Your task to perform on an android device: Play the latest video from the Washington Post Image 0: 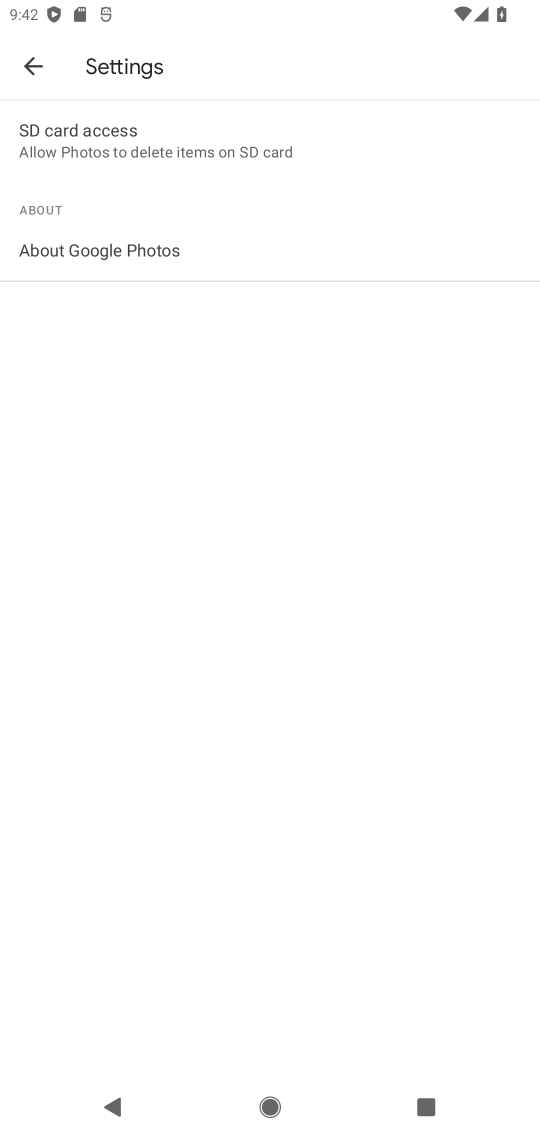
Step 0: press home button
Your task to perform on an android device: Play the latest video from the Washington Post Image 1: 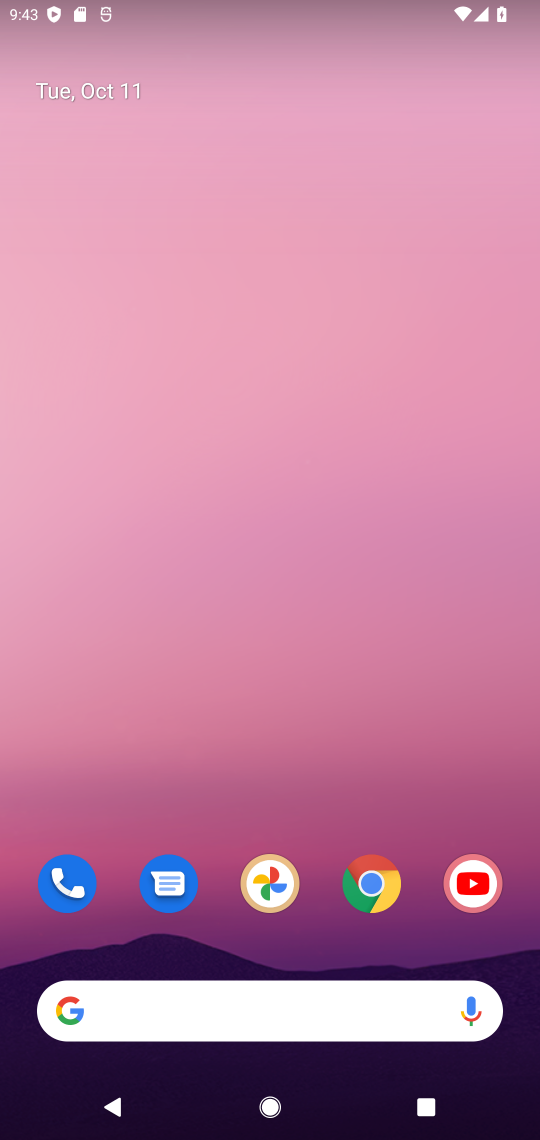
Step 1: drag from (410, 1139) to (524, 1115)
Your task to perform on an android device: Play the latest video from the Washington Post Image 2: 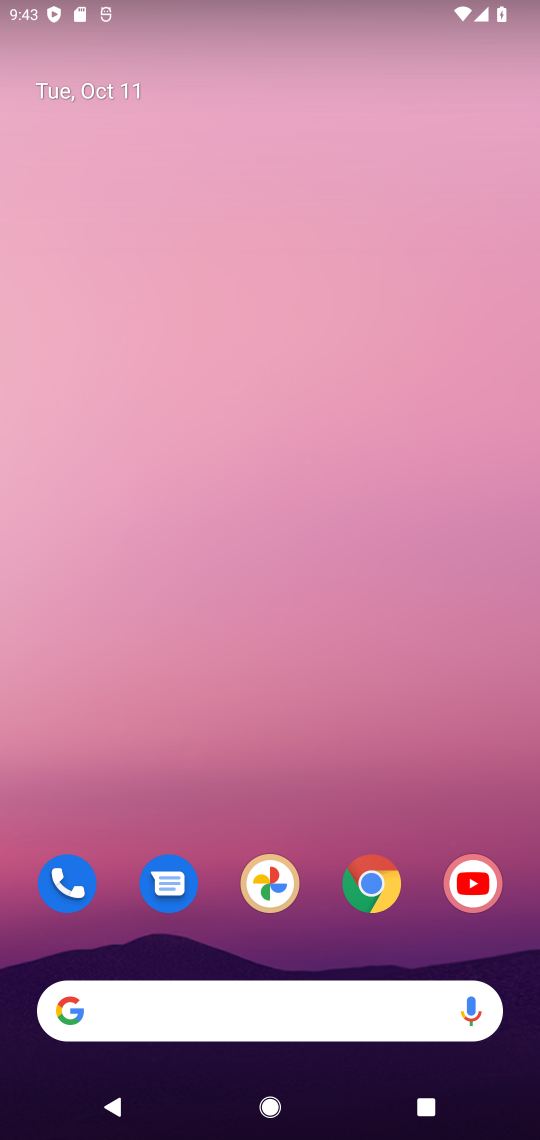
Step 2: click (65, 1010)
Your task to perform on an android device: Play the latest video from the Washington Post Image 3: 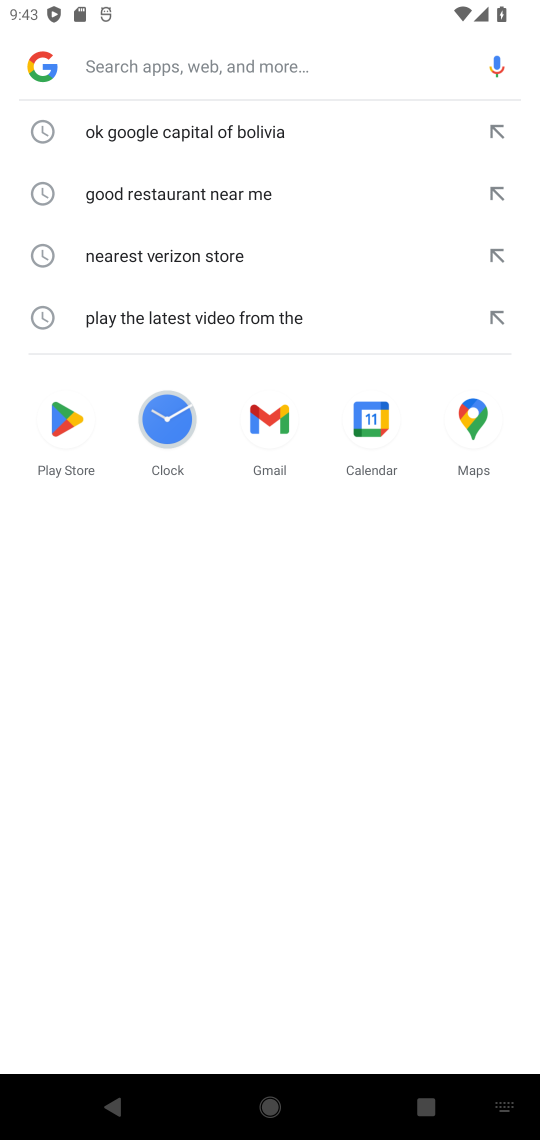
Step 3: click (315, 58)
Your task to perform on an android device: Play the latest video from the Washington Post Image 4: 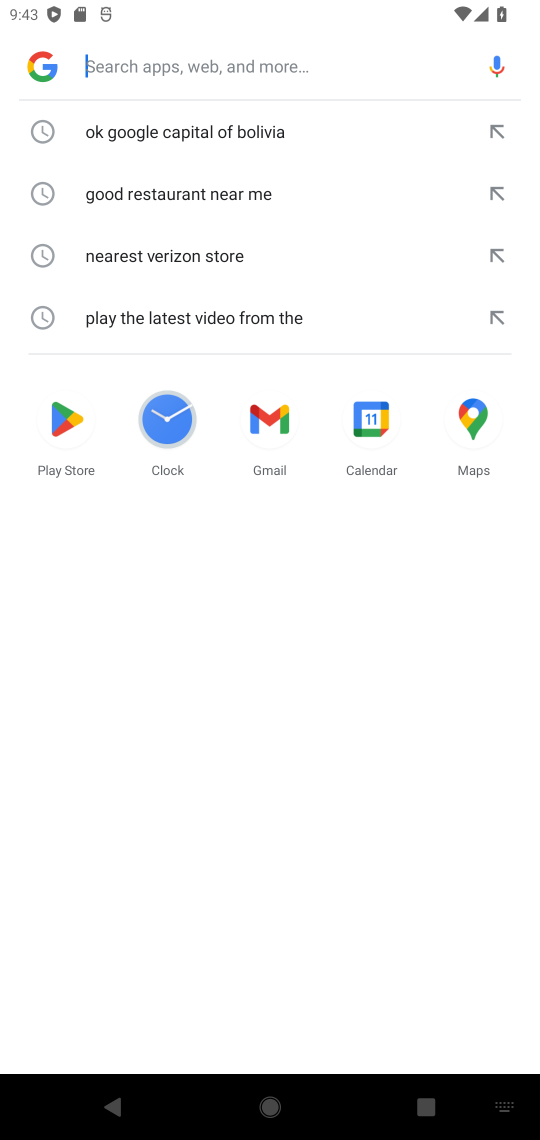
Step 4: type "Play the latest video from the Washington Post"
Your task to perform on an android device: Play the latest video from the Washington Post Image 5: 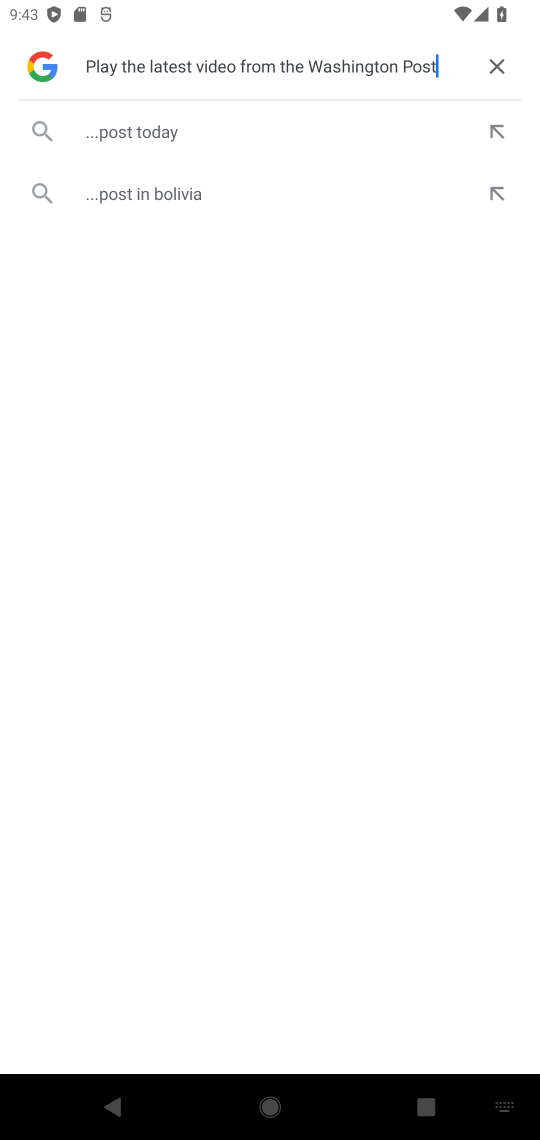
Step 5: task complete